Your task to perform on an android device: Open calendar and show me the fourth week of next month Image 0: 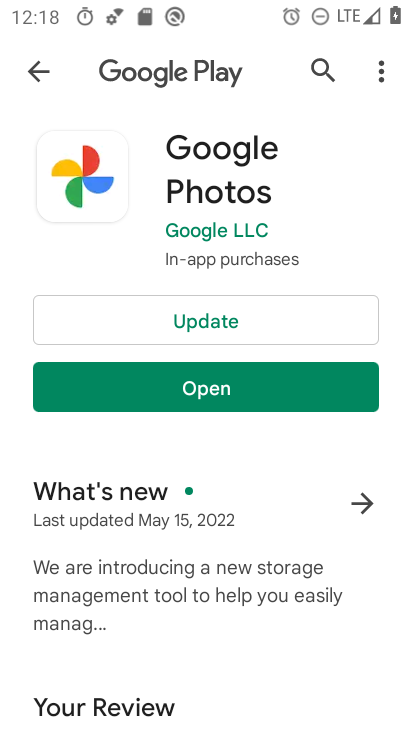
Step 0: press home button
Your task to perform on an android device: Open calendar and show me the fourth week of next month Image 1: 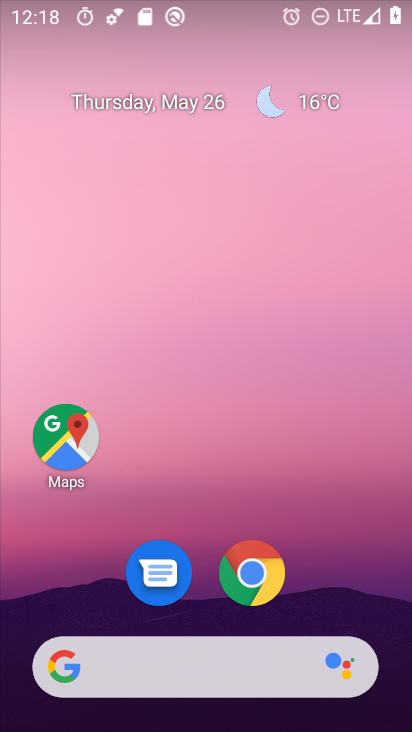
Step 1: drag from (331, 619) to (376, 36)
Your task to perform on an android device: Open calendar and show me the fourth week of next month Image 2: 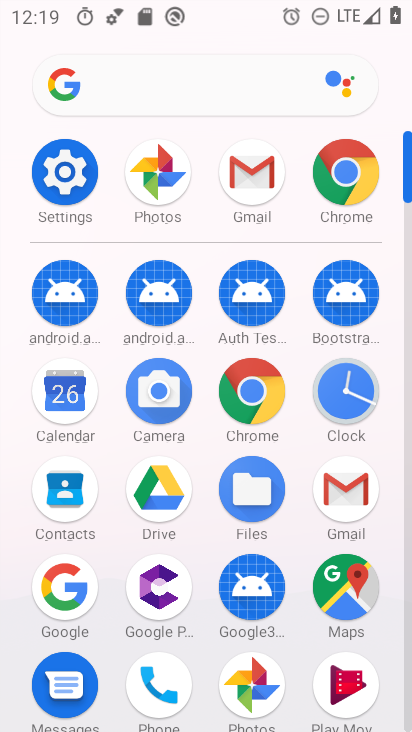
Step 2: click (54, 401)
Your task to perform on an android device: Open calendar and show me the fourth week of next month Image 3: 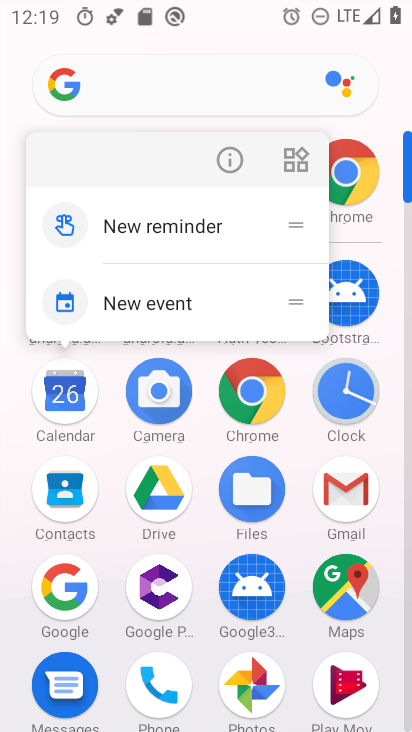
Step 3: click (54, 401)
Your task to perform on an android device: Open calendar and show me the fourth week of next month Image 4: 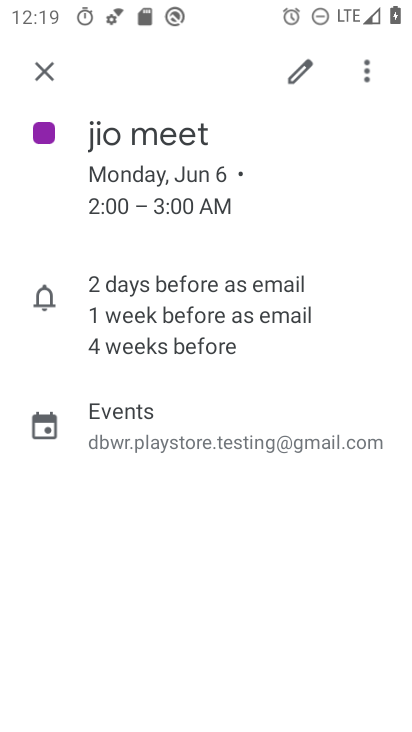
Step 4: click (46, 67)
Your task to perform on an android device: Open calendar and show me the fourth week of next month Image 5: 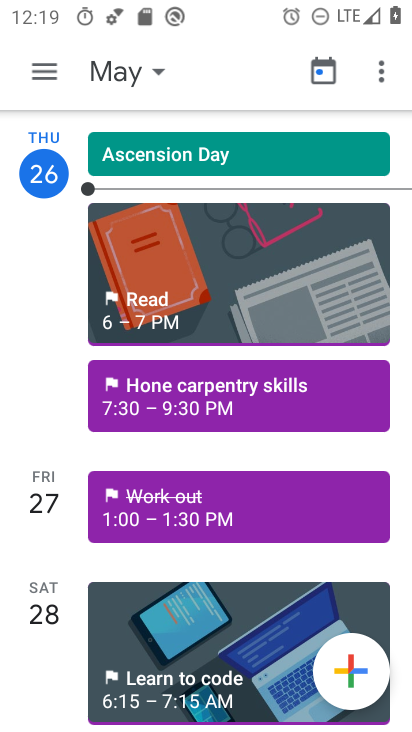
Step 5: click (37, 79)
Your task to perform on an android device: Open calendar and show me the fourth week of next month Image 6: 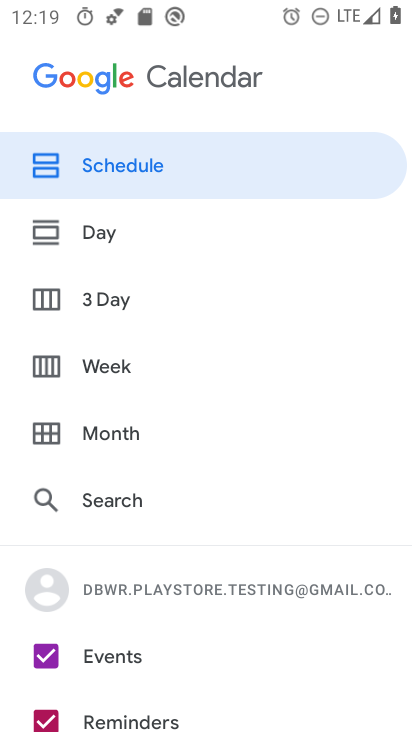
Step 6: click (65, 361)
Your task to perform on an android device: Open calendar and show me the fourth week of next month Image 7: 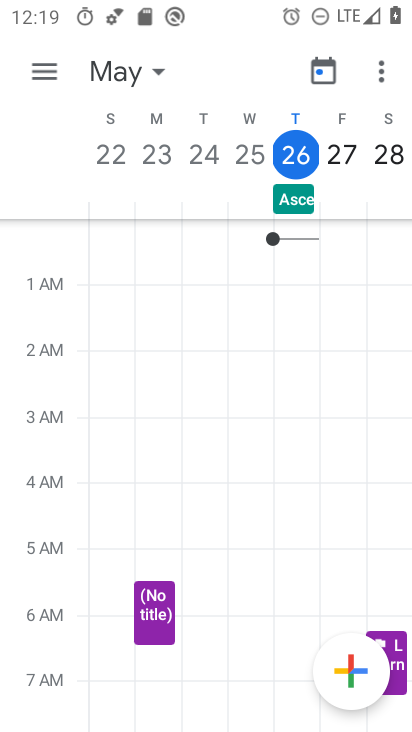
Step 7: task complete